Your task to perform on an android device: check data usage Image 0: 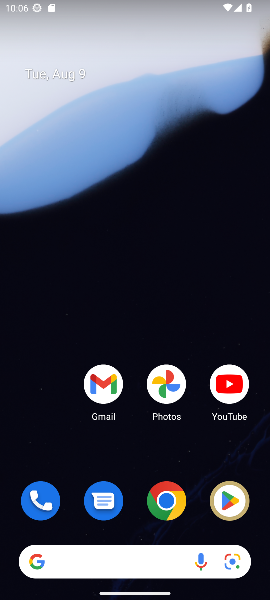
Step 0: drag from (130, 493) to (141, 165)
Your task to perform on an android device: check data usage Image 1: 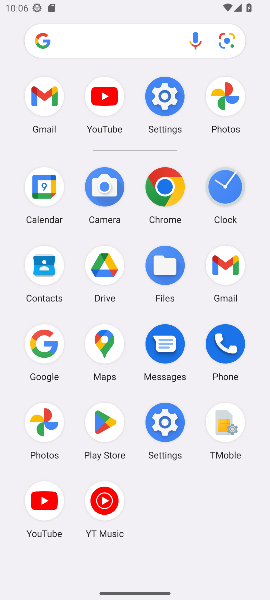
Step 1: click (163, 98)
Your task to perform on an android device: check data usage Image 2: 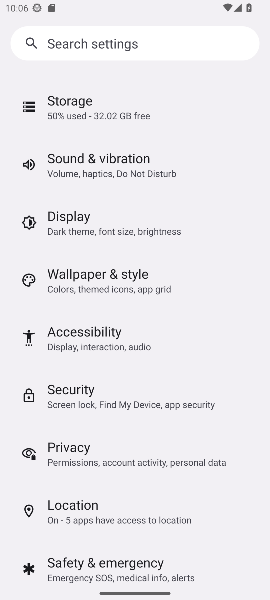
Step 2: drag from (109, 505) to (145, 245)
Your task to perform on an android device: check data usage Image 3: 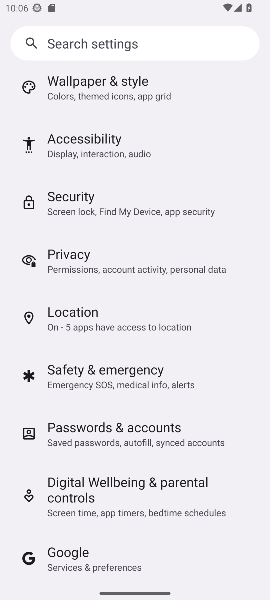
Step 3: drag from (162, 226) to (159, 574)
Your task to perform on an android device: check data usage Image 4: 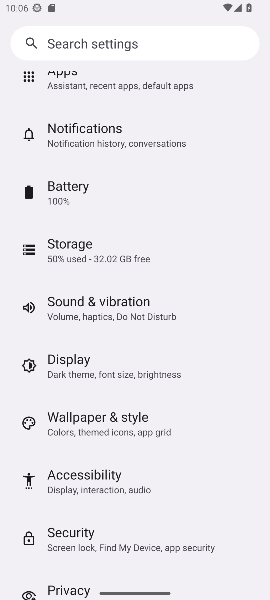
Step 4: drag from (137, 143) to (154, 492)
Your task to perform on an android device: check data usage Image 5: 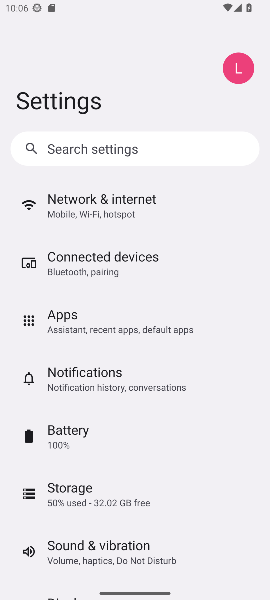
Step 5: click (66, 201)
Your task to perform on an android device: check data usage Image 6: 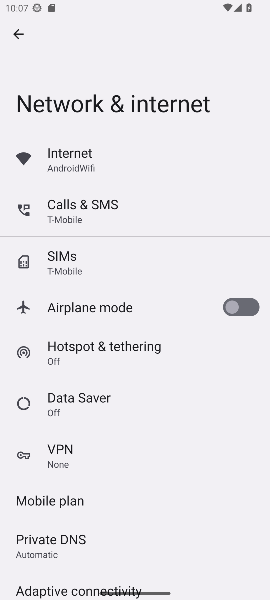
Step 6: click (57, 153)
Your task to perform on an android device: check data usage Image 7: 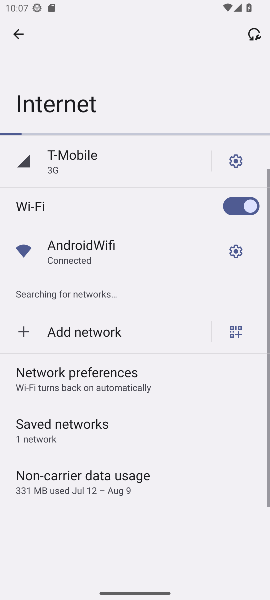
Step 7: click (52, 481)
Your task to perform on an android device: check data usage Image 8: 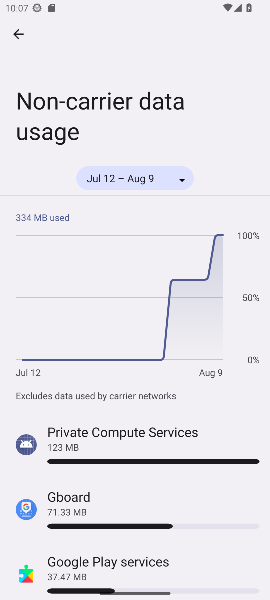
Step 8: task complete